Your task to perform on an android device: Open maps Image 0: 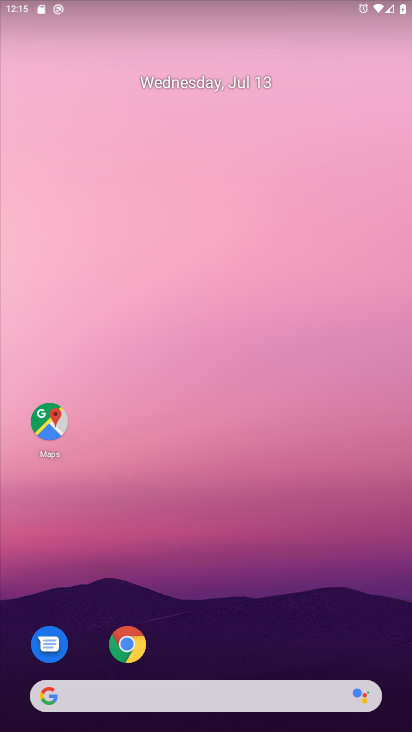
Step 0: drag from (173, 674) to (116, 185)
Your task to perform on an android device: Open maps Image 1: 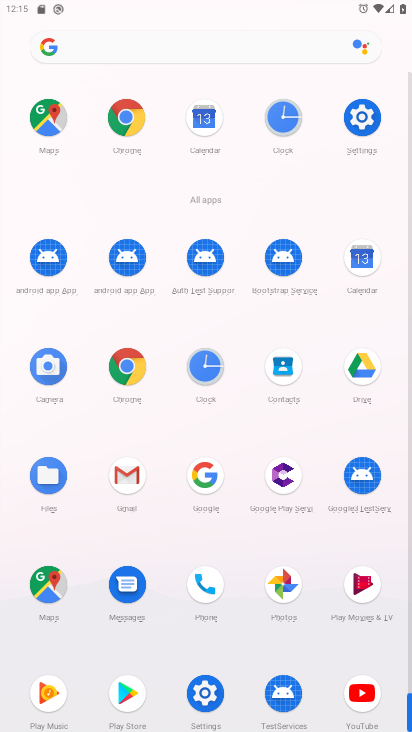
Step 1: click (116, 121)
Your task to perform on an android device: Open maps Image 2: 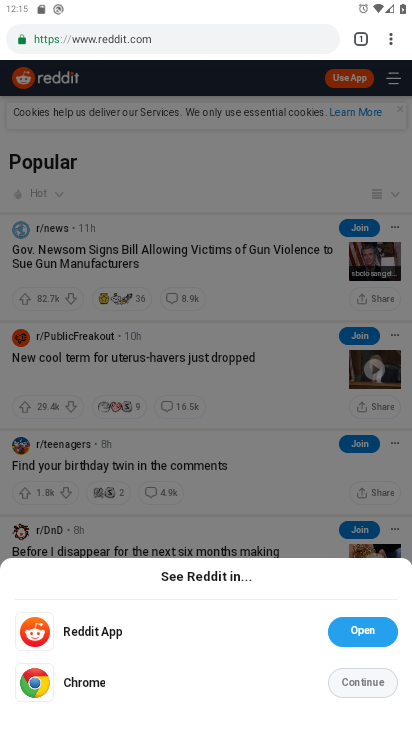
Step 2: press back button
Your task to perform on an android device: Open maps Image 3: 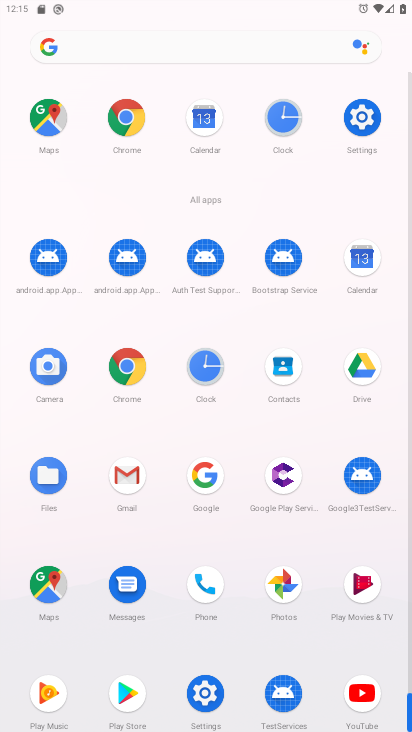
Step 3: click (42, 587)
Your task to perform on an android device: Open maps Image 4: 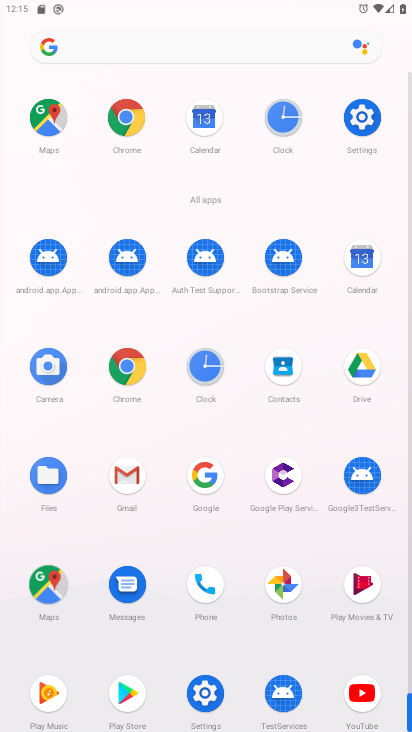
Step 4: click (42, 587)
Your task to perform on an android device: Open maps Image 5: 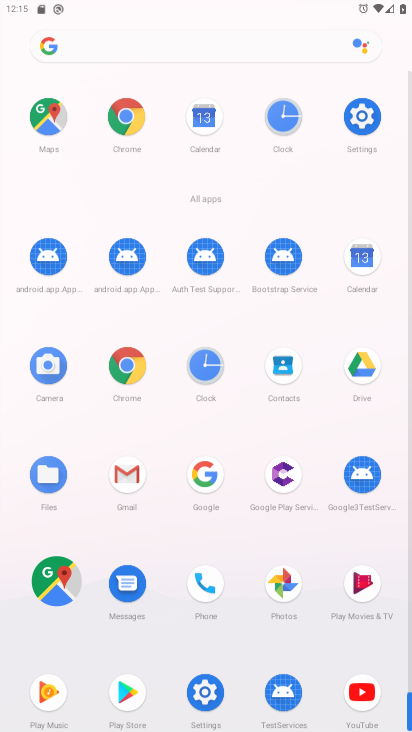
Step 5: click (42, 587)
Your task to perform on an android device: Open maps Image 6: 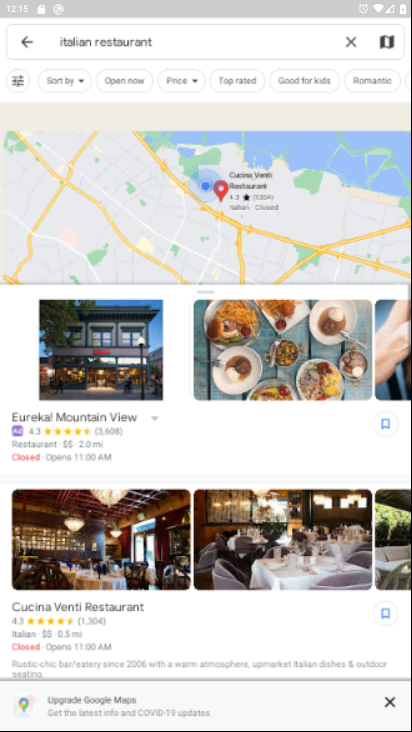
Step 6: click (44, 580)
Your task to perform on an android device: Open maps Image 7: 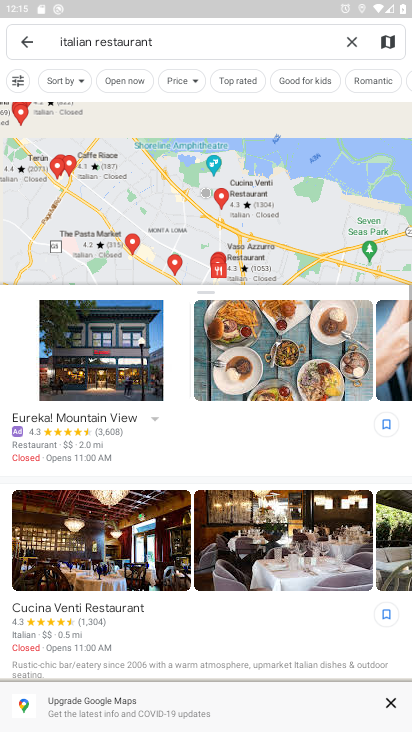
Step 7: task complete